Your task to perform on an android device: Go to Yahoo.com Image 0: 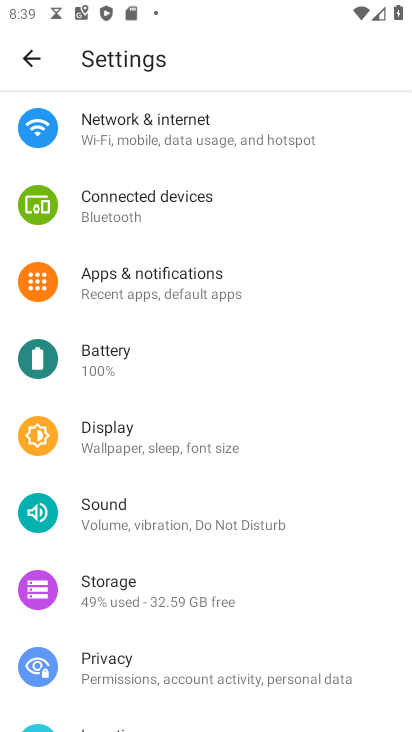
Step 0: press home button
Your task to perform on an android device: Go to Yahoo.com Image 1: 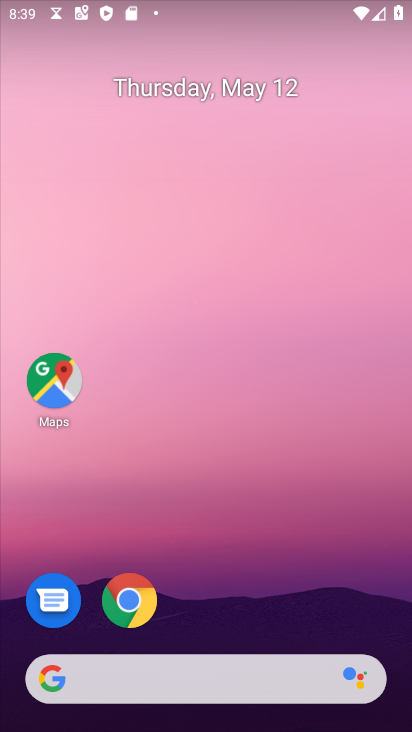
Step 1: click (136, 602)
Your task to perform on an android device: Go to Yahoo.com Image 2: 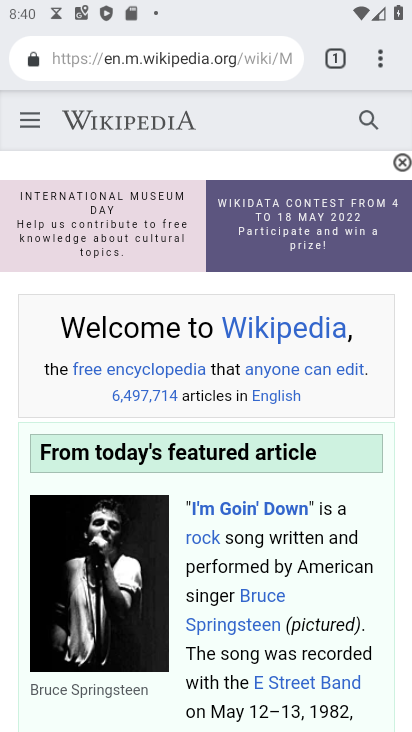
Step 2: press back button
Your task to perform on an android device: Go to Yahoo.com Image 3: 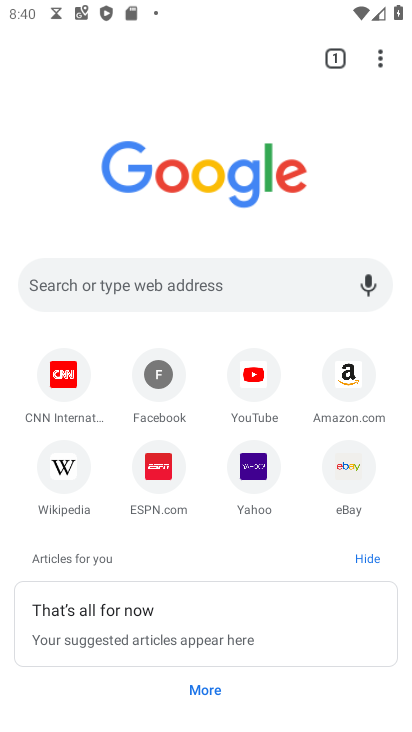
Step 3: click (259, 481)
Your task to perform on an android device: Go to Yahoo.com Image 4: 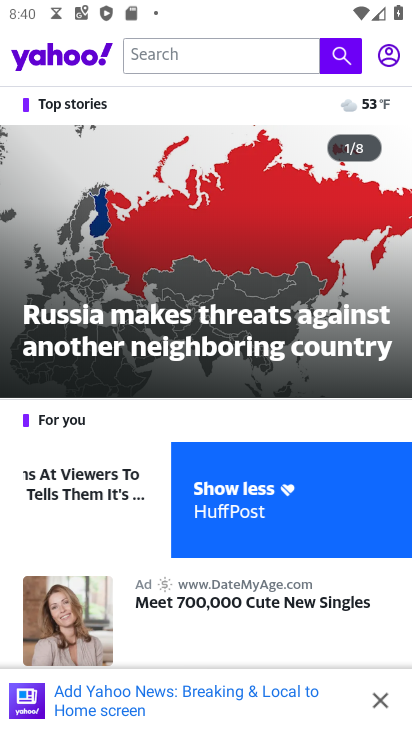
Step 4: task complete